Your task to perform on an android device: Open Google Maps and go to "Timeline" Image 0: 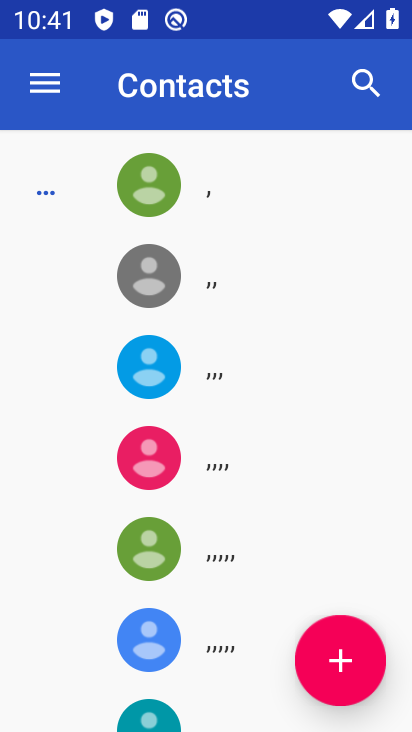
Step 0: press home button
Your task to perform on an android device: Open Google Maps and go to "Timeline" Image 1: 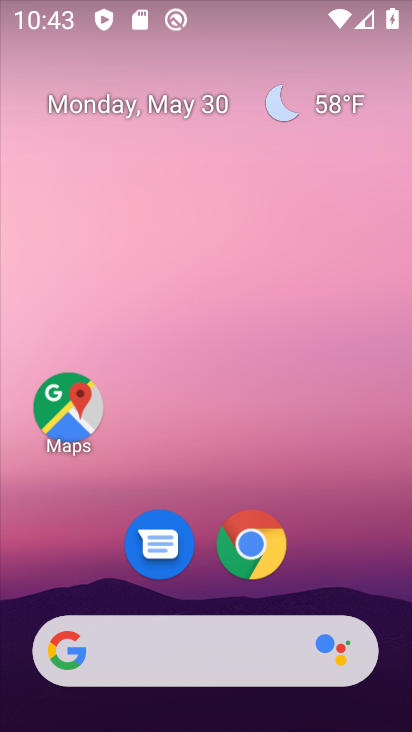
Step 1: click (95, 400)
Your task to perform on an android device: Open Google Maps and go to "Timeline" Image 2: 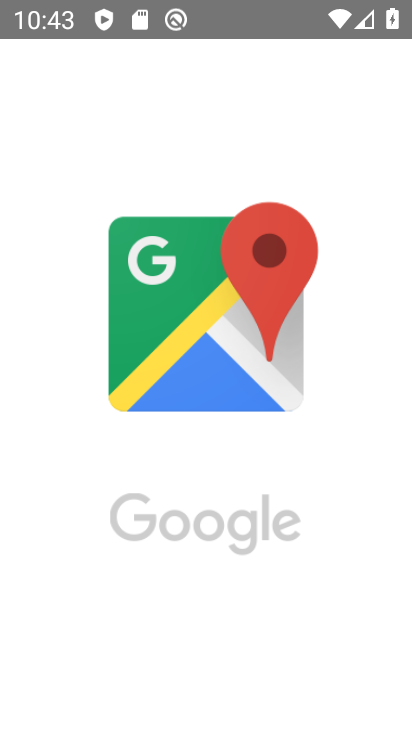
Step 2: task complete